Your task to perform on an android device: change keyboard looks Image 0: 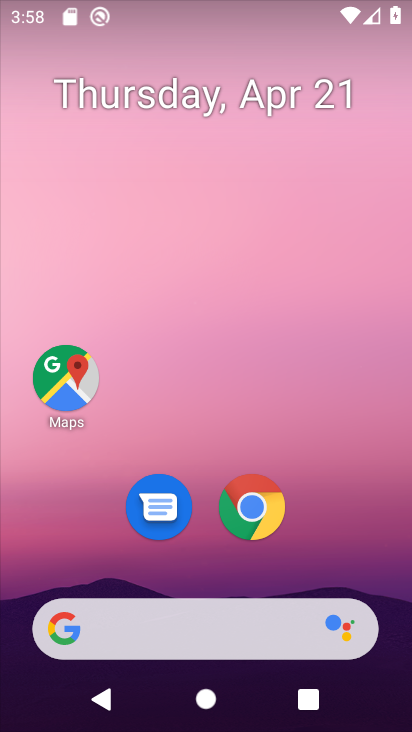
Step 0: drag from (357, 548) to (308, 6)
Your task to perform on an android device: change keyboard looks Image 1: 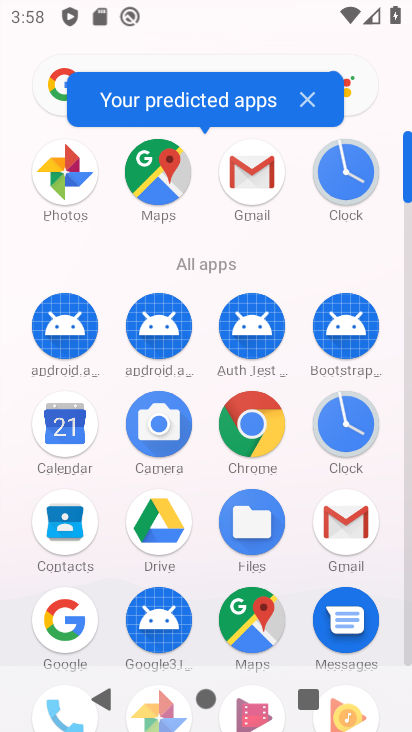
Step 1: click (410, 660)
Your task to perform on an android device: change keyboard looks Image 2: 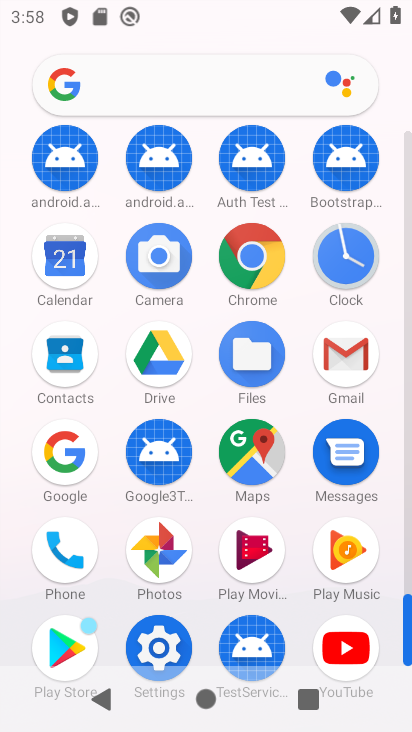
Step 2: click (161, 649)
Your task to perform on an android device: change keyboard looks Image 3: 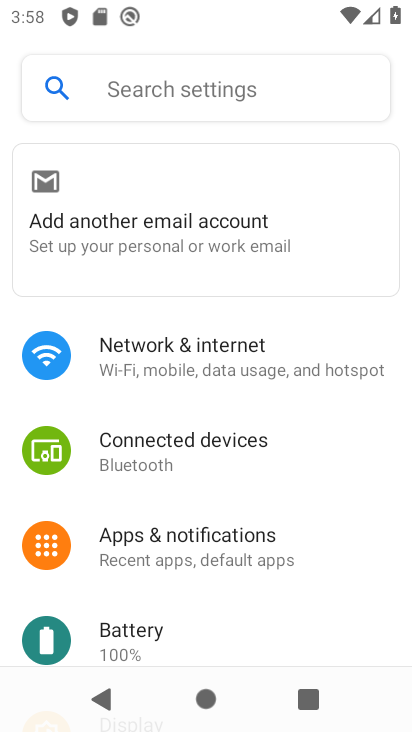
Step 3: drag from (231, 581) to (275, 87)
Your task to perform on an android device: change keyboard looks Image 4: 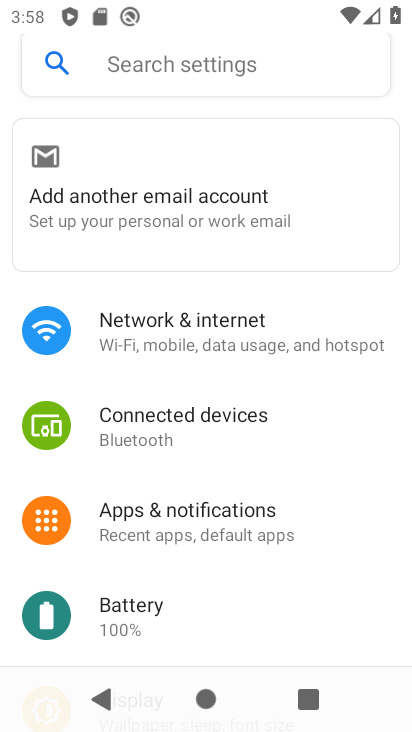
Step 4: drag from (270, 577) to (296, 73)
Your task to perform on an android device: change keyboard looks Image 5: 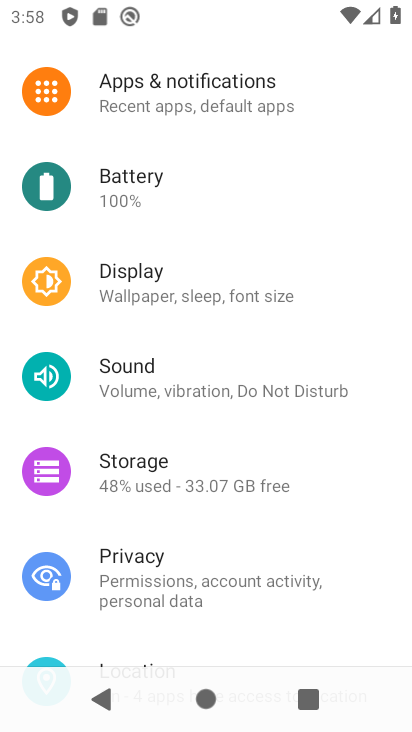
Step 5: drag from (314, 631) to (314, 82)
Your task to perform on an android device: change keyboard looks Image 6: 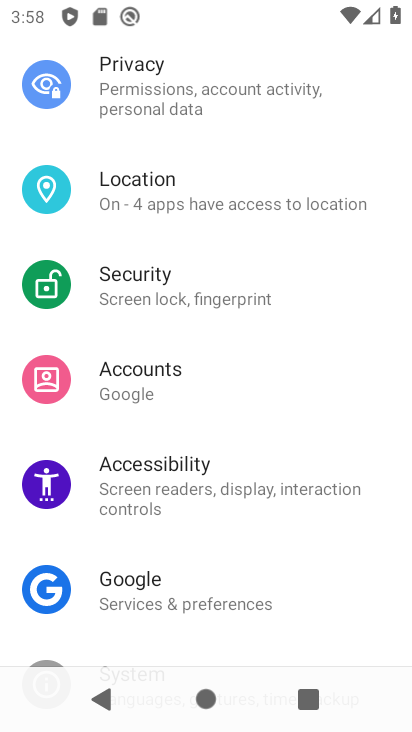
Step 6: drag from (292, 641) to (320, 190)
Your task to perform on an android device: change keyboard looks Image 7: 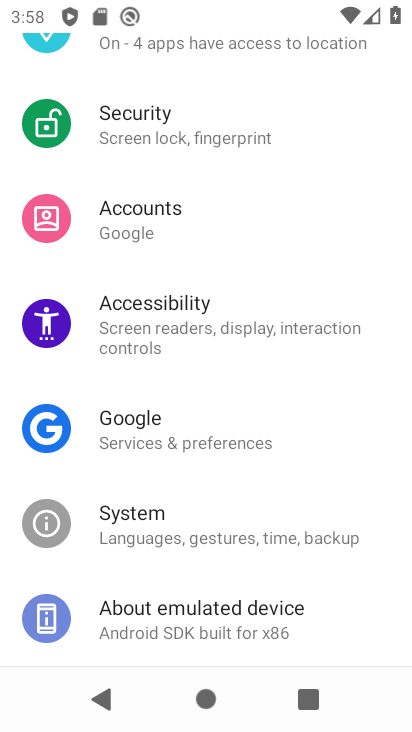
Step 7: click (267, 541)
Your task to perform on an android device: change keyboard looks Image 8: 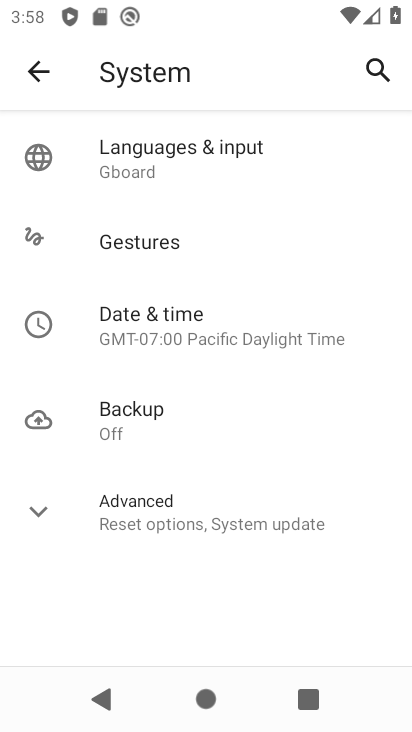
Step 8: click (248, 168)
Your task to perform on an android device: change keyboard looks Image 9: 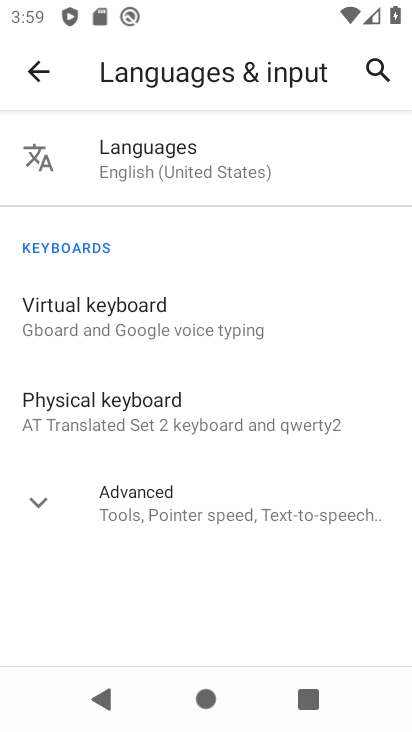
Step 9: click (240, 334)
Your task to perform on an android device: change keyboard looks Image 10: 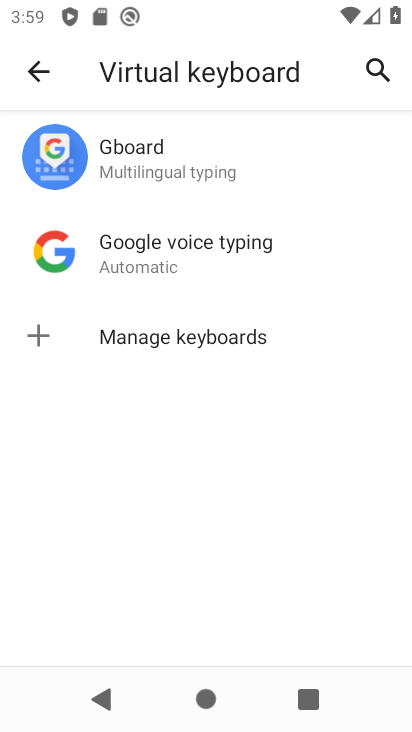
Step 10: click (215, 151)
Your task to perform on an android device: change keyboard looks Image 11: 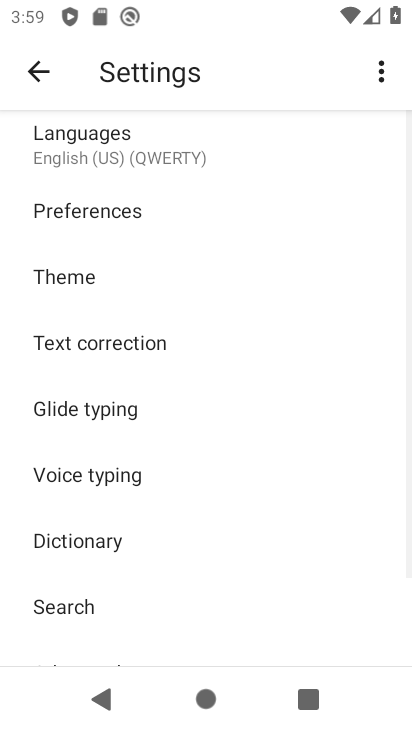
Step 11: click (154, 280)
Your task to perform on an android device: change keyboard looks Image 12: 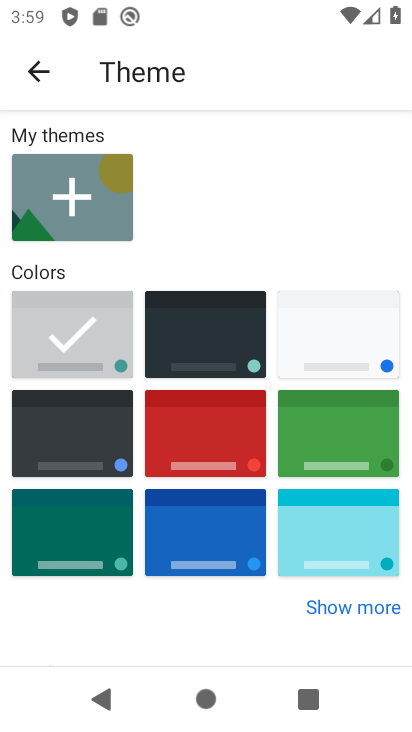
Step 12: click (181, 320)
Your task to perform on an android device: change keyboard looks Image 13: 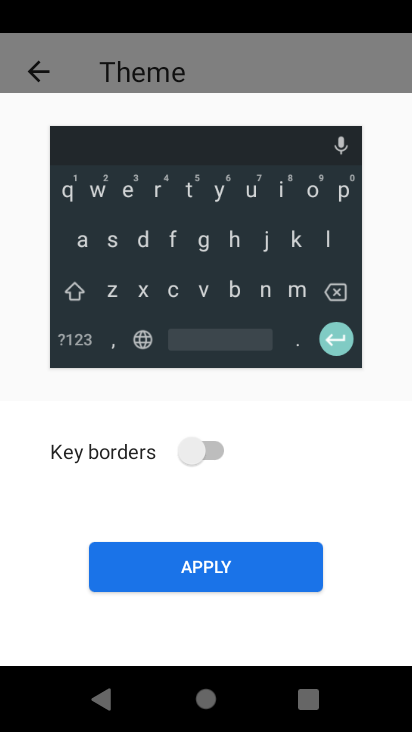
Step 13: click (215, 578)
Your task to perform on an android device: change keyboard looks Image 14: 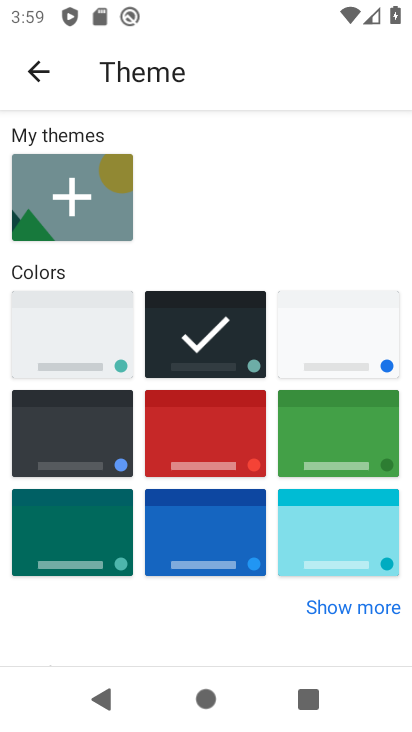
Step 14: task complete